Your task to perform on an android device: turn off smart reply in the gmail app Image 0: 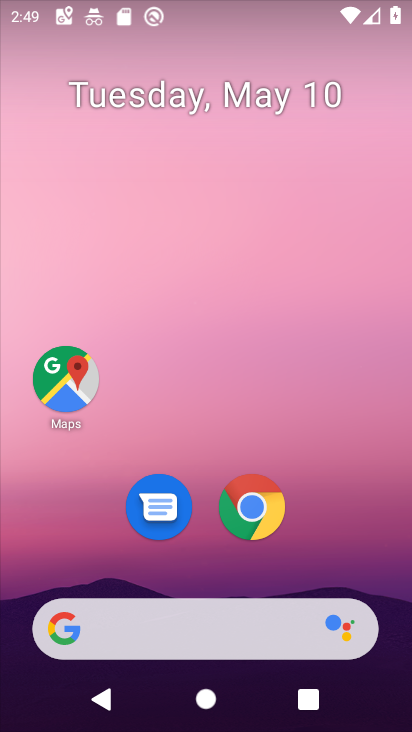
Step 0: drag from (209, 504) to (221, 204)
Your task to perform on an android device: turn off smart reply in the gmail app Image 1: 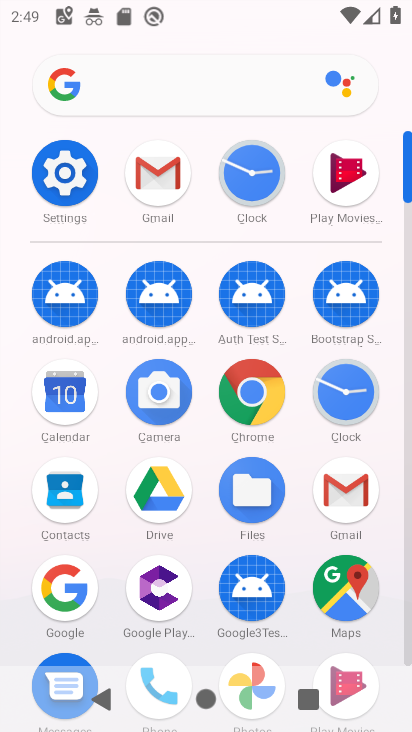
Step 1: click (153, 172)
Your task to perform on an android device: turn off smart reply in the gmail app Image 2: 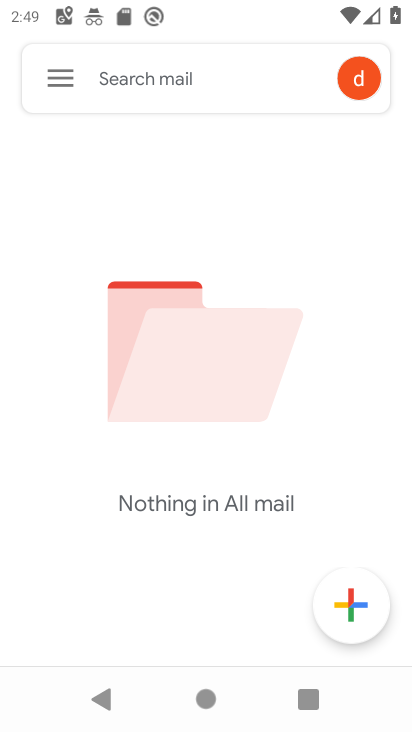
Step 2: click (53, 83)
Your task to perform on an android device: turn off smart reply in the gmail app Image 3: 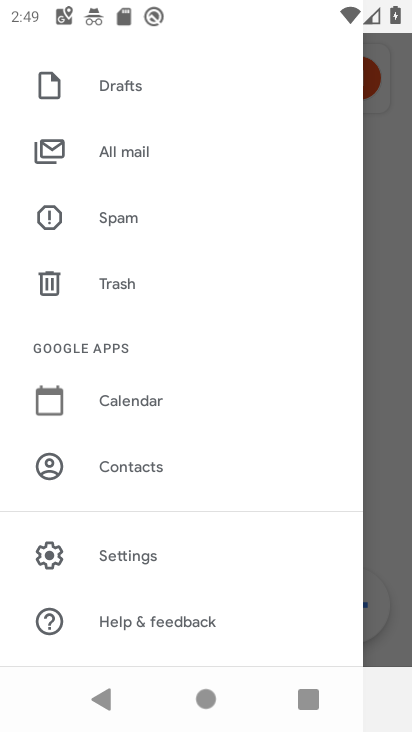
Step 3: drag from (151, 137) to (168, 608)
Your task to perform on an android device: turn off smart reply in the gmail app Image 4: 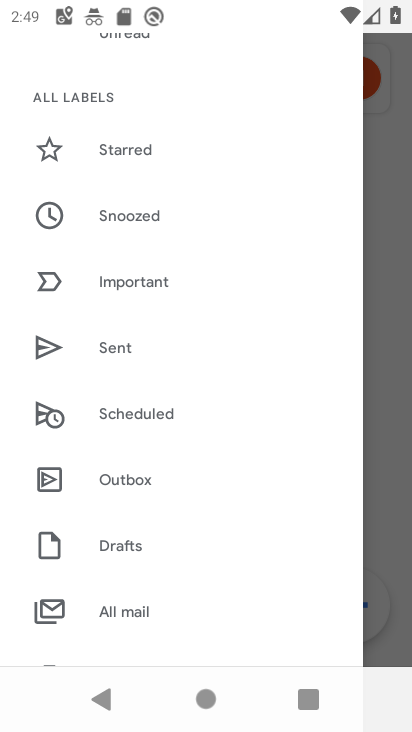
Step 4: drag from (136, 151) to (108, 545)
Your task to perform on an android device: turn off smart reply in the gmail app Image 5: 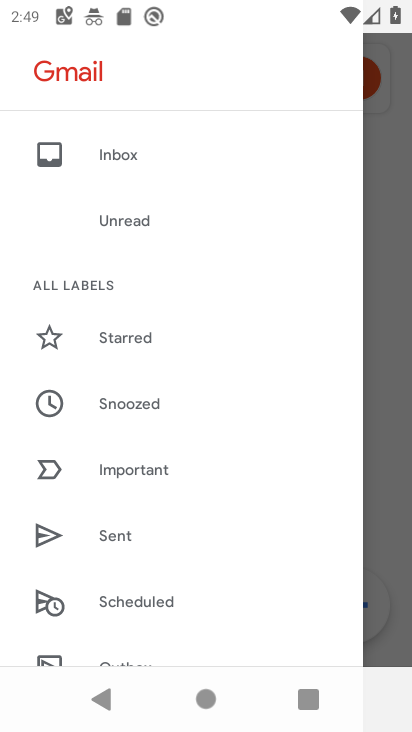
Step 5: drag from (163, 561) to (161, 84)
Your task to perform on an android device: turn off smart reply in the gmail app Image 6: 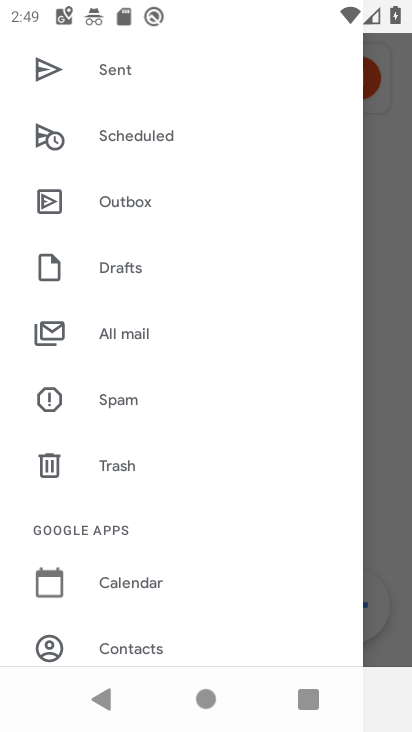
Step 6: drag from (152, 542) to (188, 195)
Your task to perform on an android device: turn off smart reply in the gmail app Image 7: 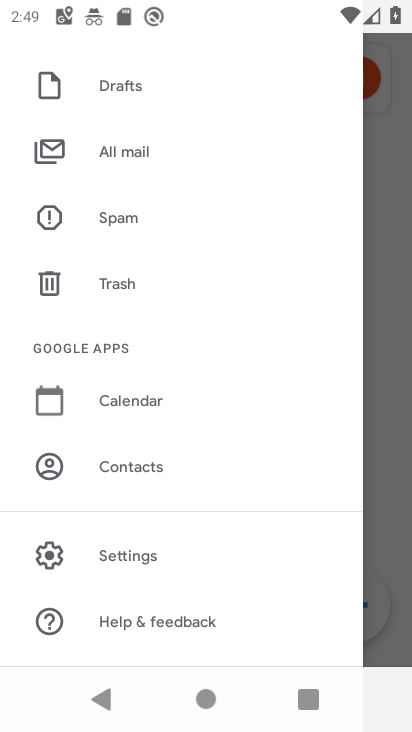
Step 7: click (137, 551)
Your task to perform on an android device: turn off smart reply in the gmail app Image 8: 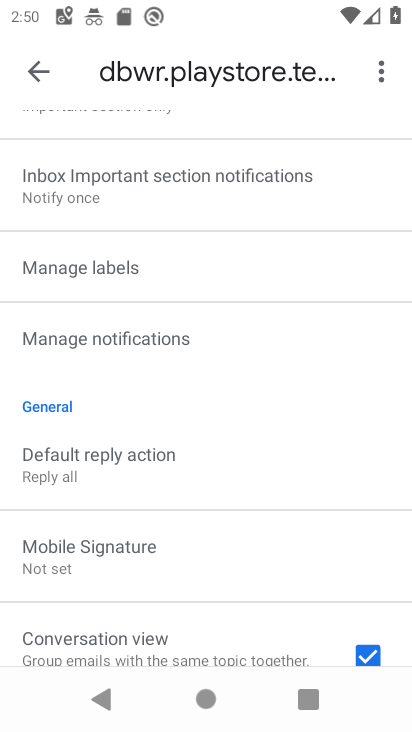
Step 8: drag from (119, 583) to (211, 227)
Your task to perform on an android device: turn off smart reply in the gmail app Image 9: 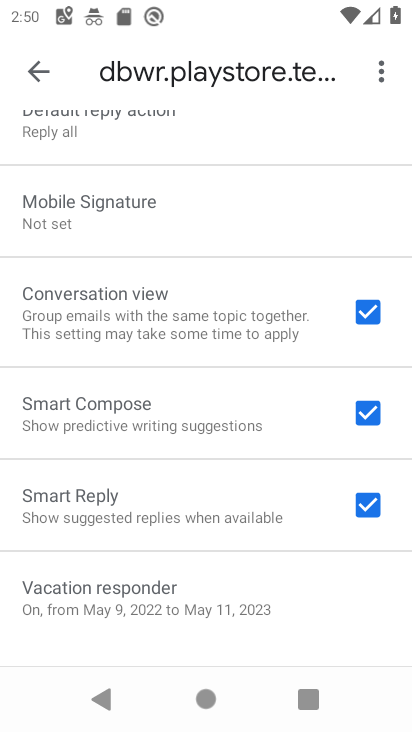
Step 9: click (373, 504)
Your task to perform on an android device: turn off smart reply in the gmail app Image 10: 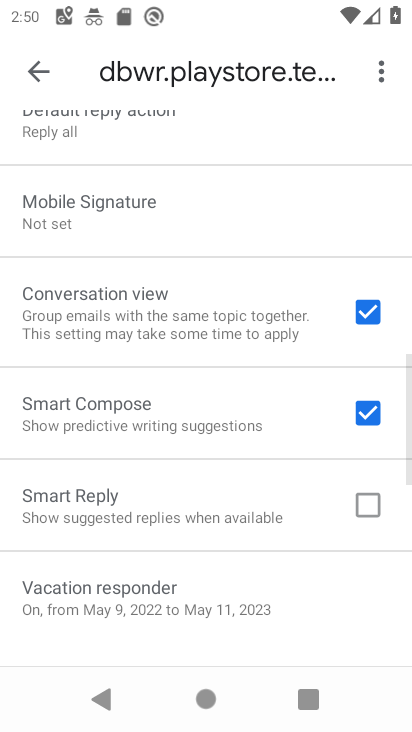
Step 10: task complete